Your task to perform on an android device: open a new tab in the chrome app Image 0: 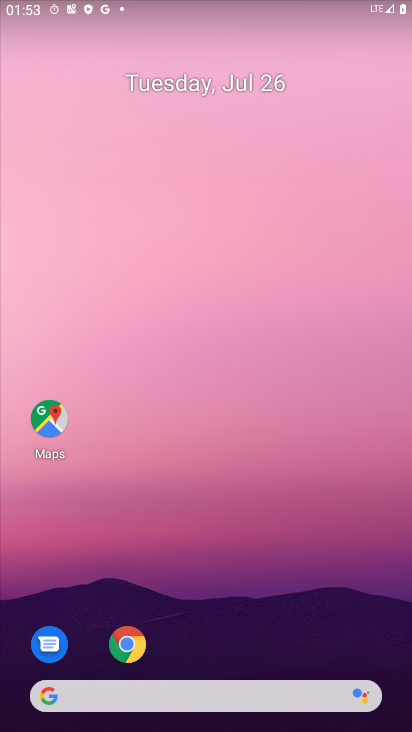
Step 0: click (136, 644)
Your task to perform on an android device: open a new tab in the chrome app Image 1: 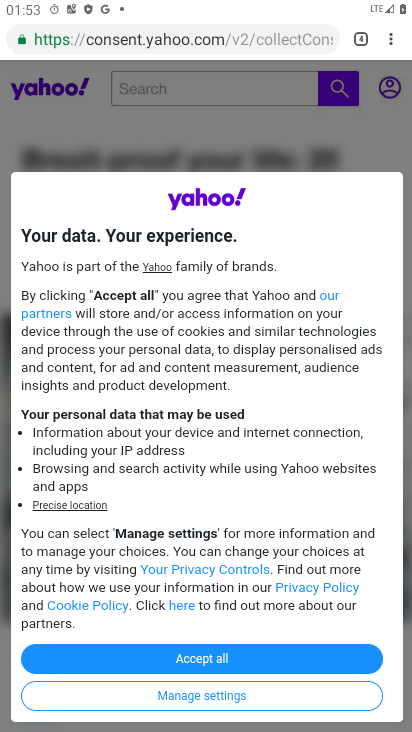
Step 1: click (392, 38)
Your task to perform on an android device: open a new tab in the chrome app Image 2: 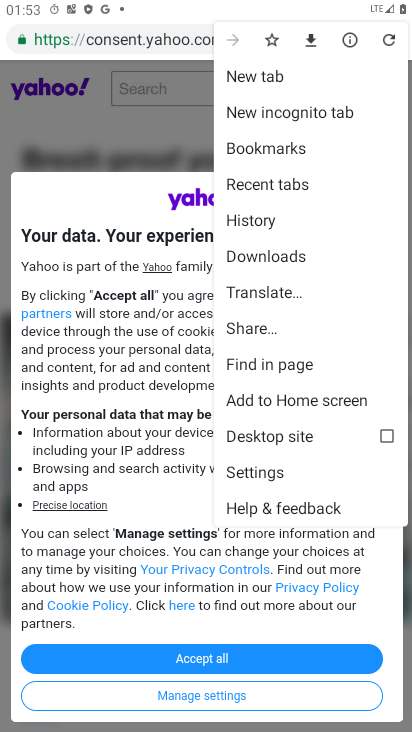
Step 2: click (268, 77)
Your task to perform on an android device: open a new tab in the chrome app Image 3: 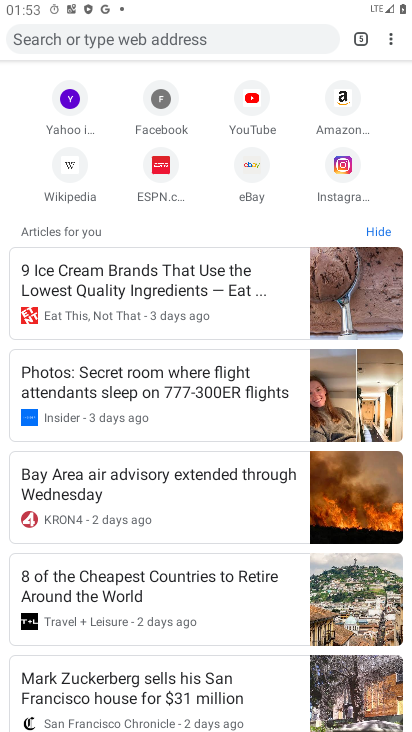
Step 3: task complete